Your task to perform on an android device: uninstall "Indeed Job Search" Image 0: 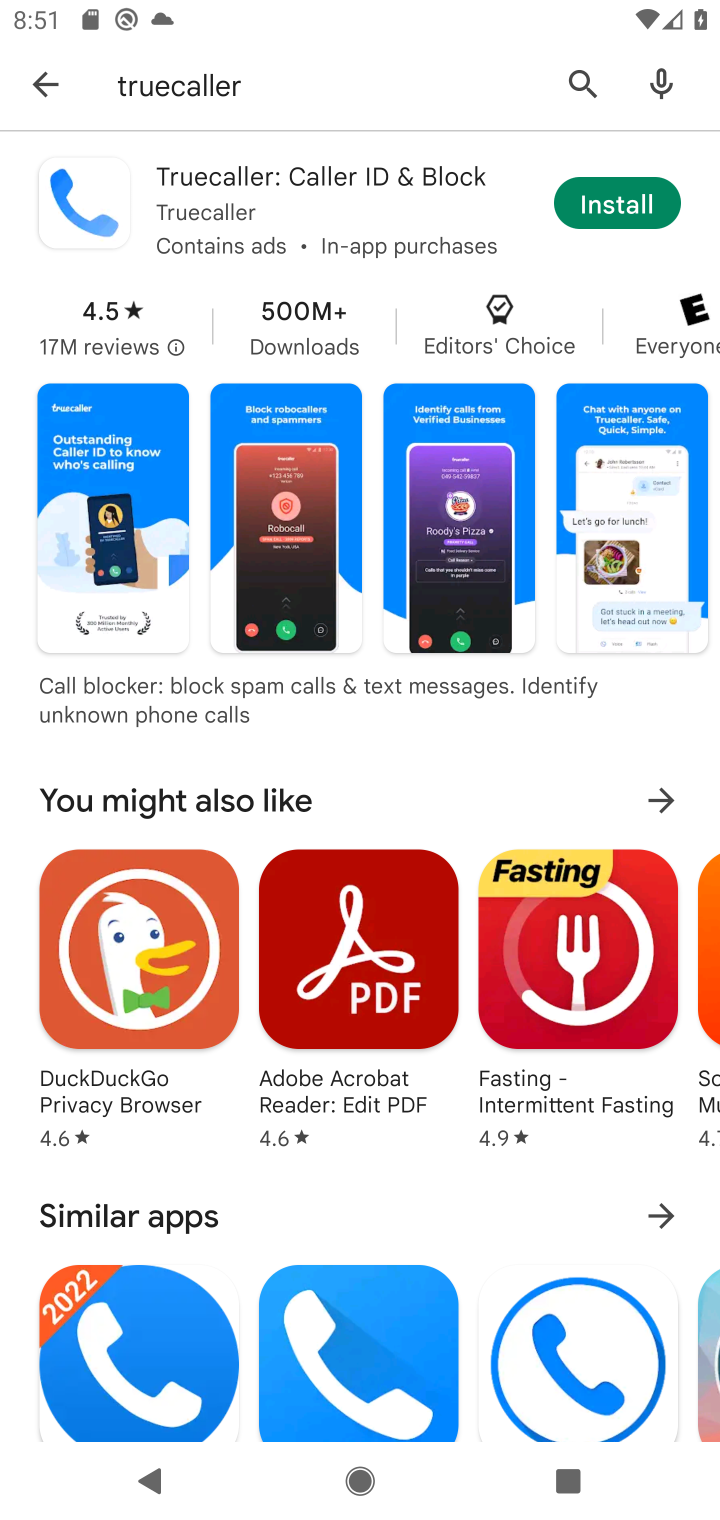
Step 0: click (576, 80)
Your task to perform on an android device: uninstall "Indeed Job Search" Image 1: 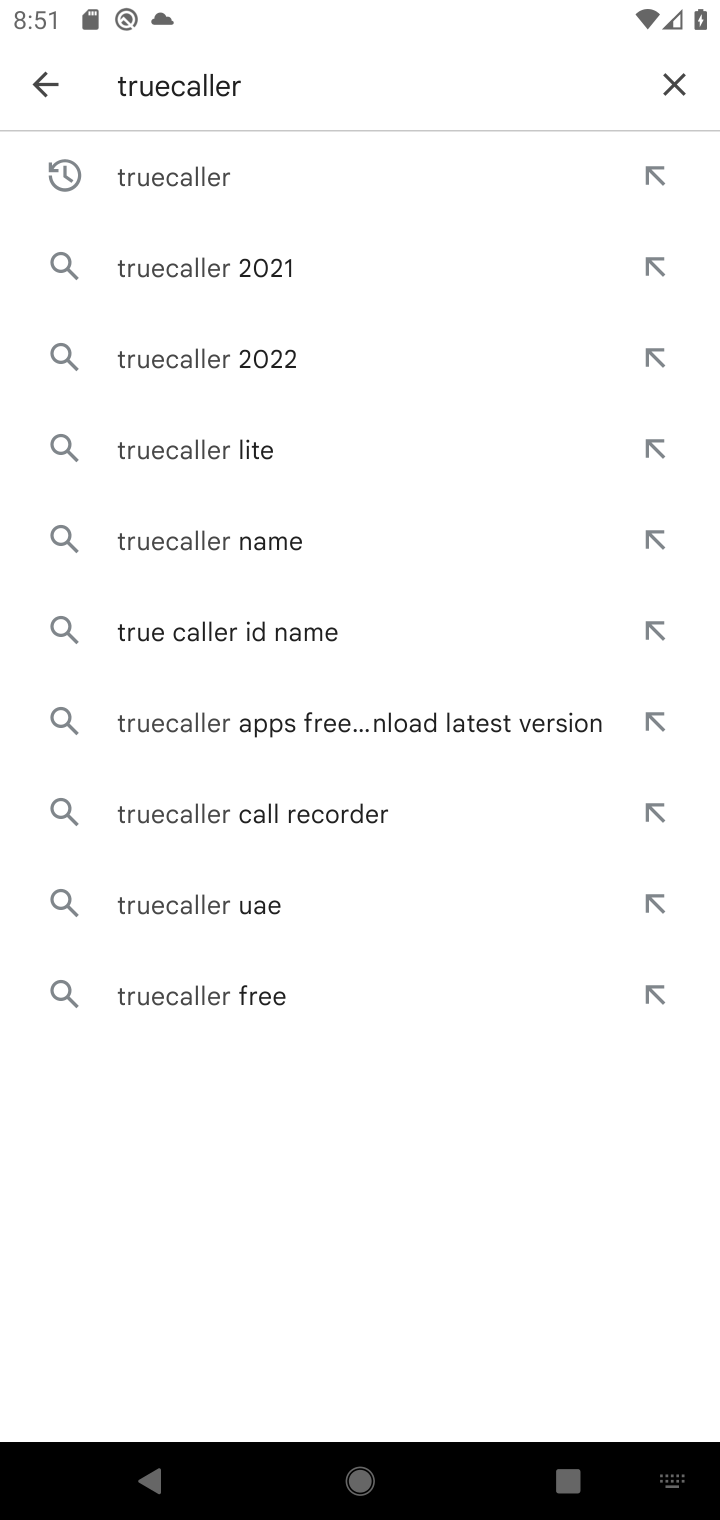
Step 1: click (682, 79)
Your task to perform on an android device: uninstall "Indeed Job Search" Image 2: 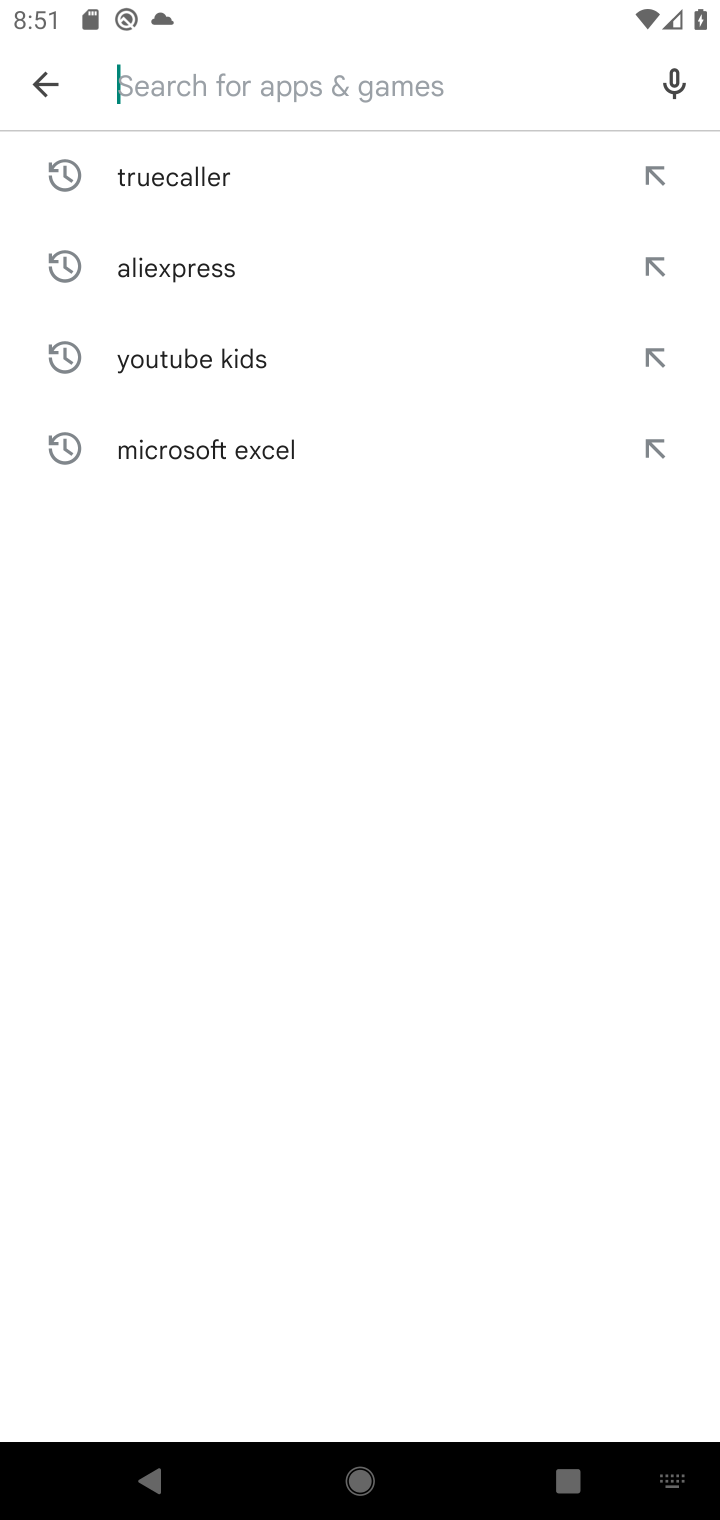
Step 2: type "indeed job search"
Your task to perform on an android device: uninstall "Indeed Job Search" Image 3: 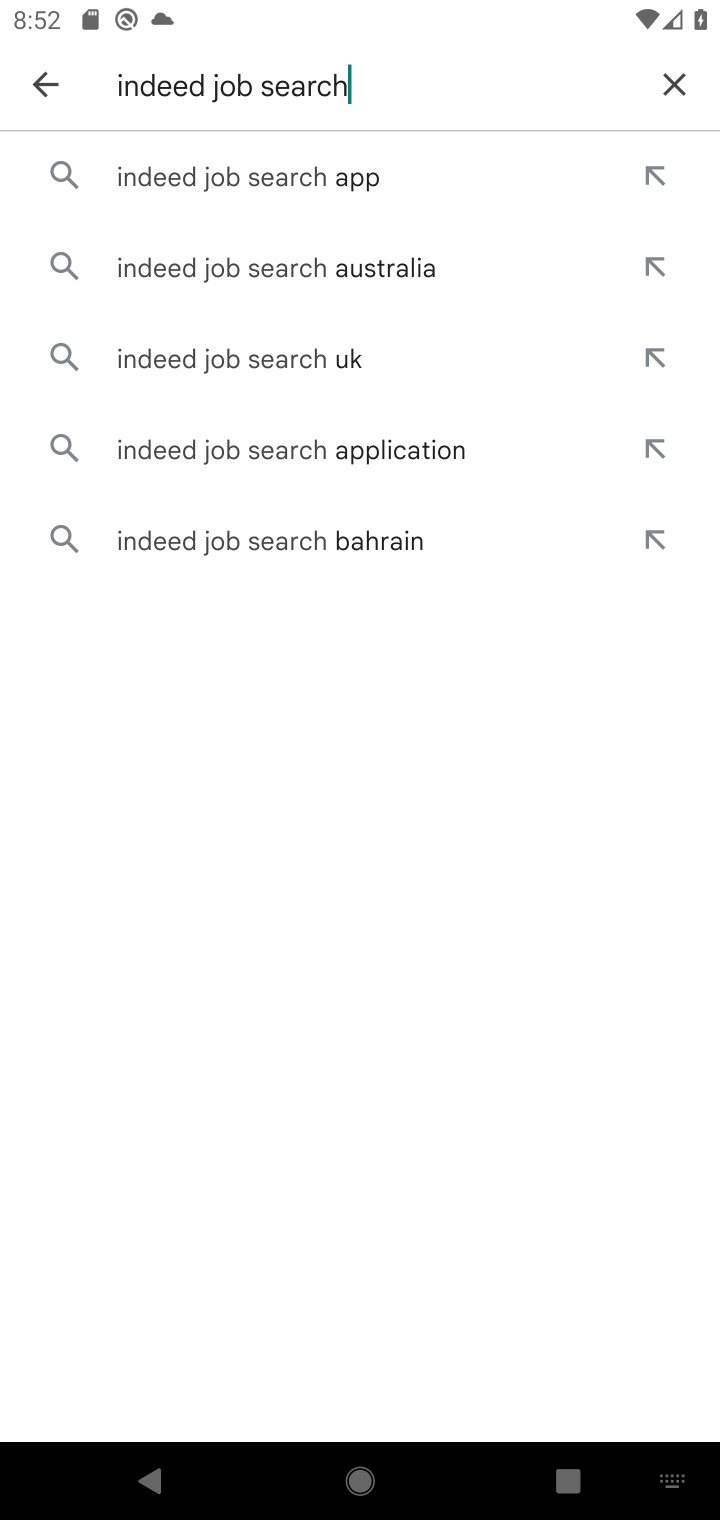
Step 3: click (196, 169)
Your task to perform on an android device: uninstall "Indeed Job Search" Image 4: 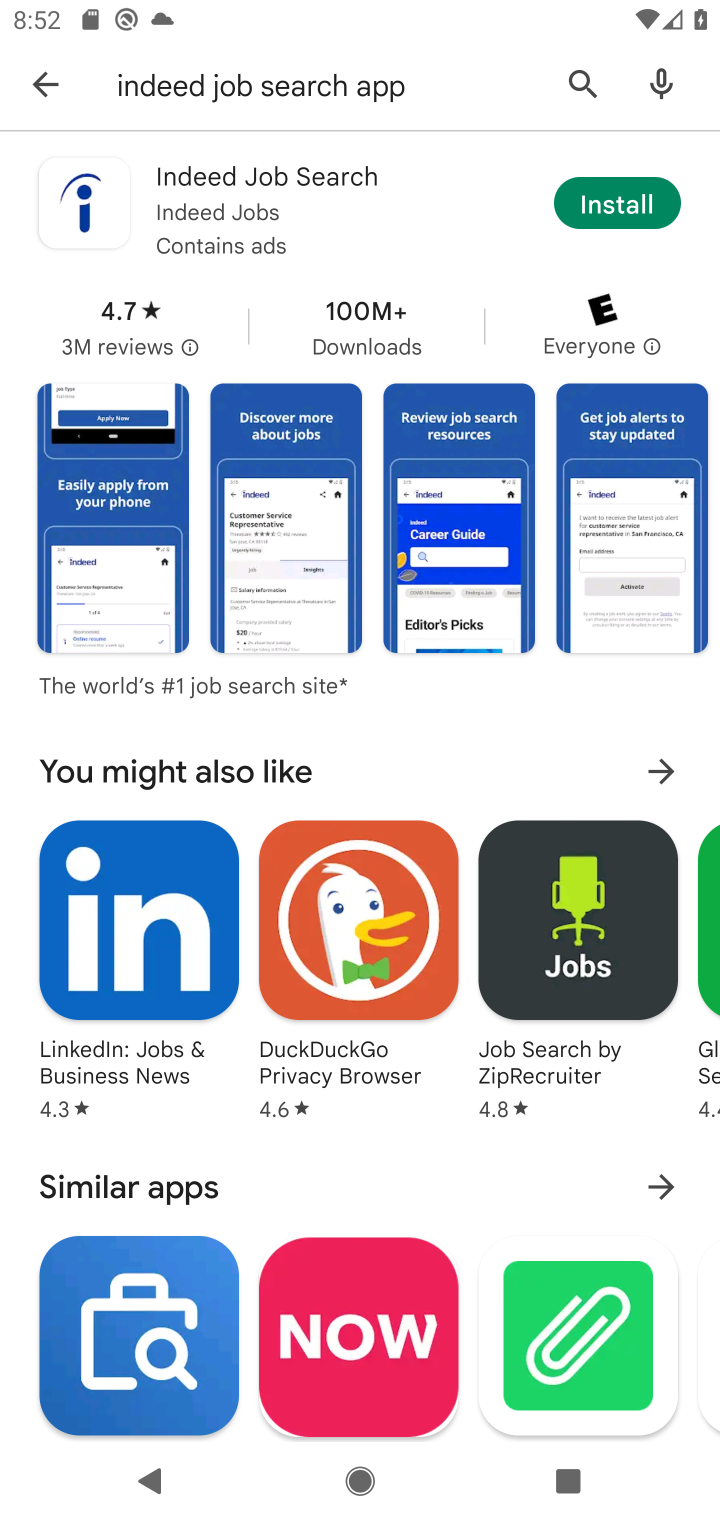
Step 4: task complete